Your task to perform on an android device: turn off data saver in the chrome app Image 0: 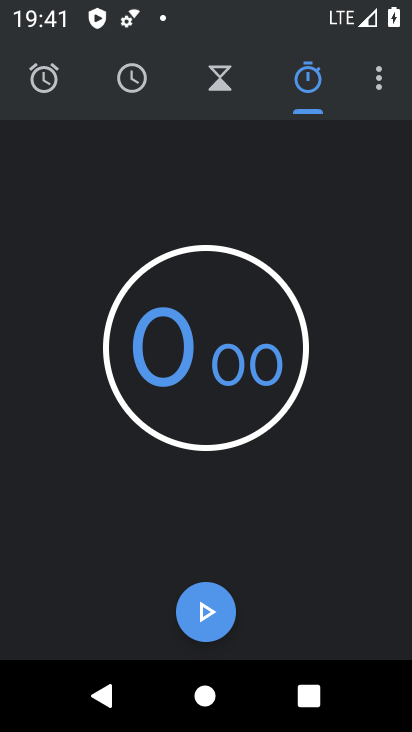
Step 0: press home button
Your task to perform on an android device: turn off data saver in the chrome app Image 1: 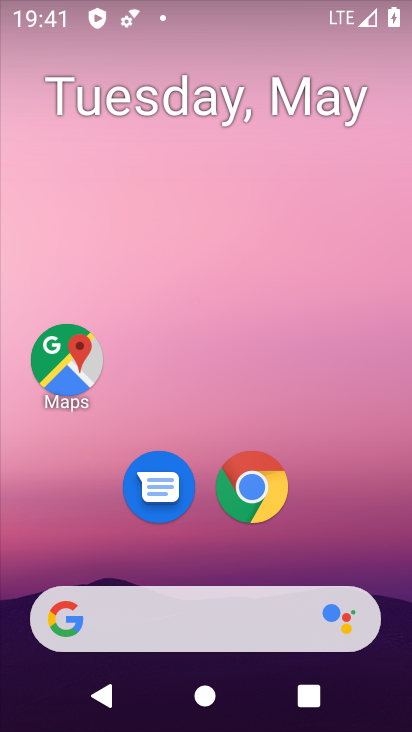
Step 1: click (246, 500)
Your task to perform on an android device: turn off data saver in the chrome app Image 2: 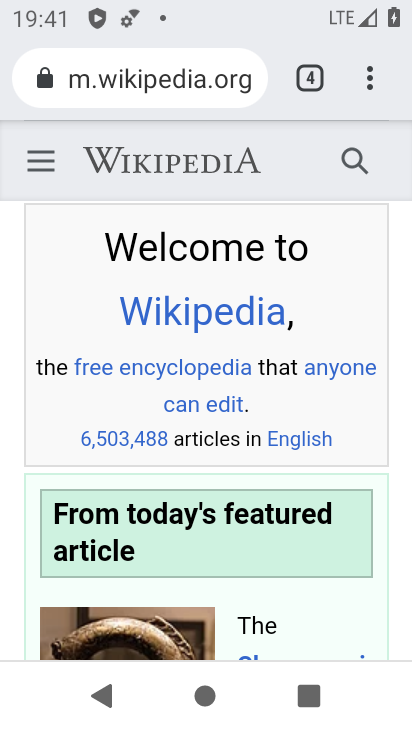
Step 2: click (371, 68)
Your task to perform on an android device: turn off data saver in the chrome app Image 3: 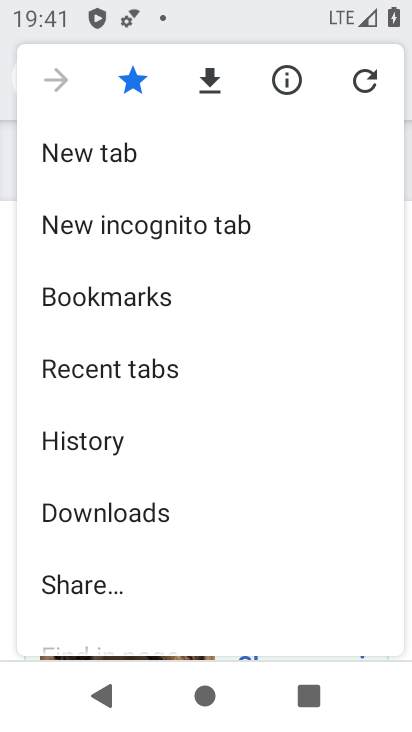
Step 3: drag from (229, 482) to (167, 76)
Your task to perform on an android device: turn off data saver in the chrome app Image 4: 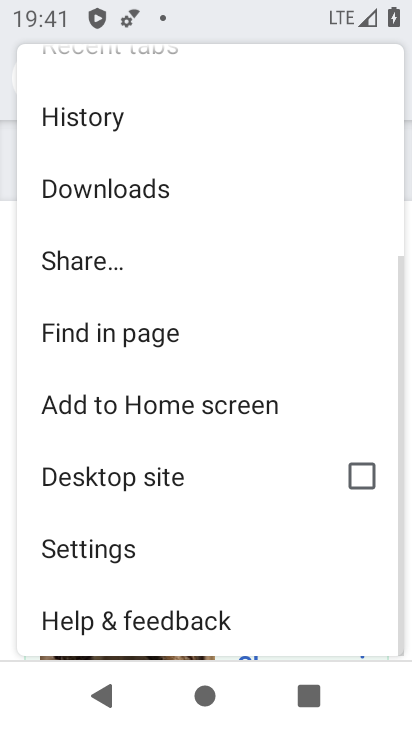
Step 4: click (111, 546)
Your task to perform on an android device: turn off data saver in the chrome app Image 5: 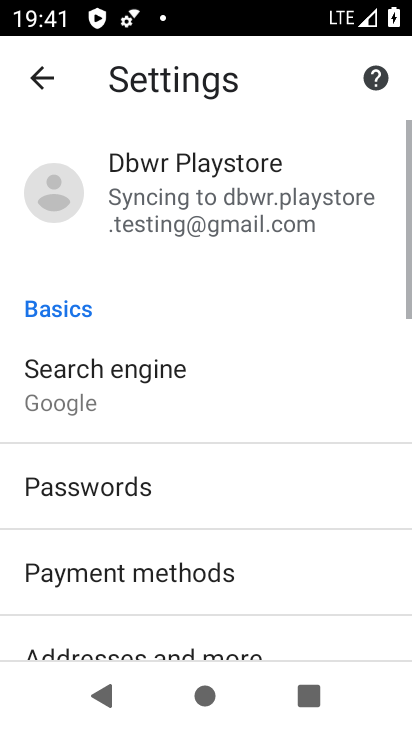
Step 5: drag from (253, 561) to (201, 210)
Your task to perform on an android device: turn off data saver in the chrome app Image 6: 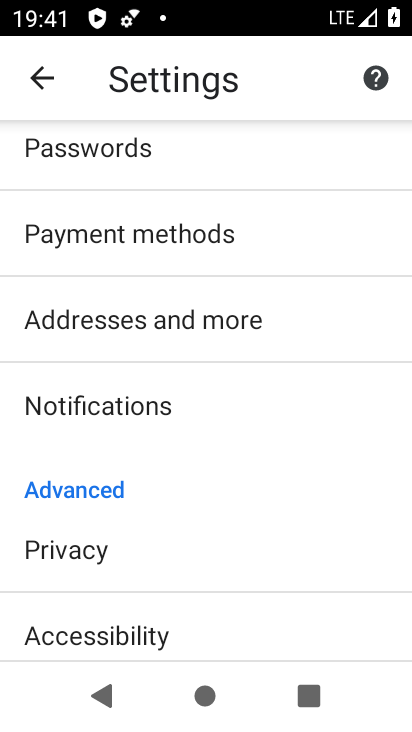
Step 6: drag from (255, 566) to (202, 278)
Your task to perform on an android device: turn off data saver in the chrome app Image 7: 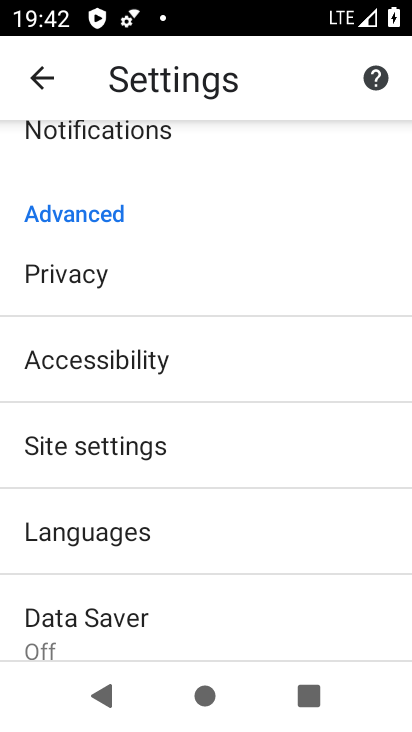
Step 7: click (92, 641)
Your task to perform on an android device: turn off data saver in the chrome app Image 8: 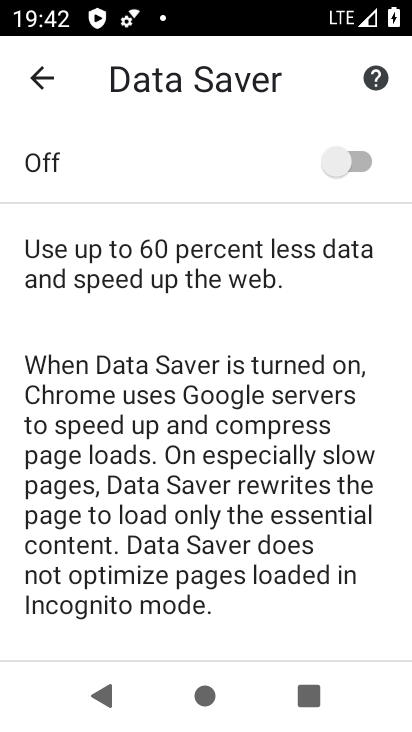
Step 8: task complete